Your task to perform on an android device: Do I have any events this weekend? Image 0: 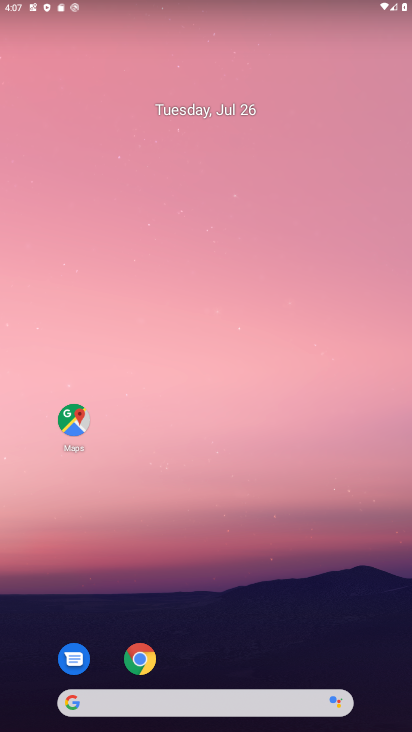
Step 0: drag from (224, 624) to (265, 99)
Your task to perform on an android device: Do I have any events this weekend? Image 1: 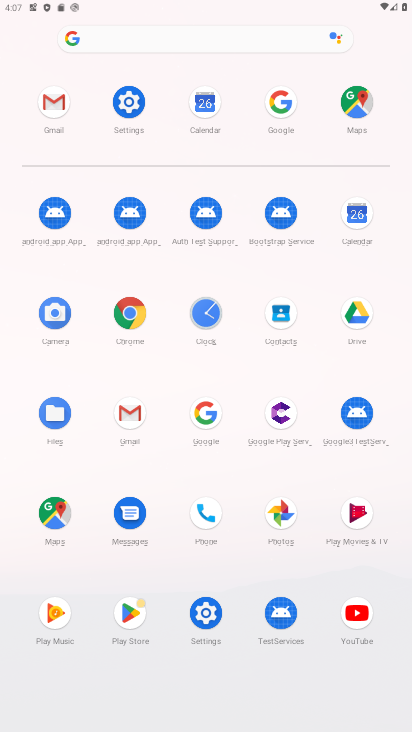
Step 1: click (353, 205)
Your task to perform on an android device: Do I have any events this weekend? Image 2: 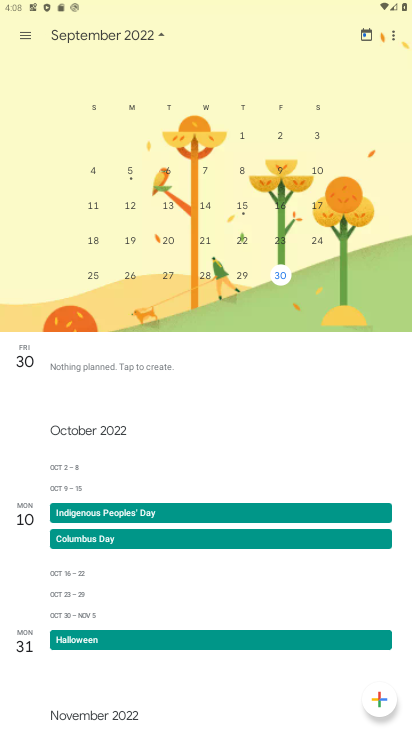
Step 2: task complete